Your task to perform on an android device: check out phone information Image 0: 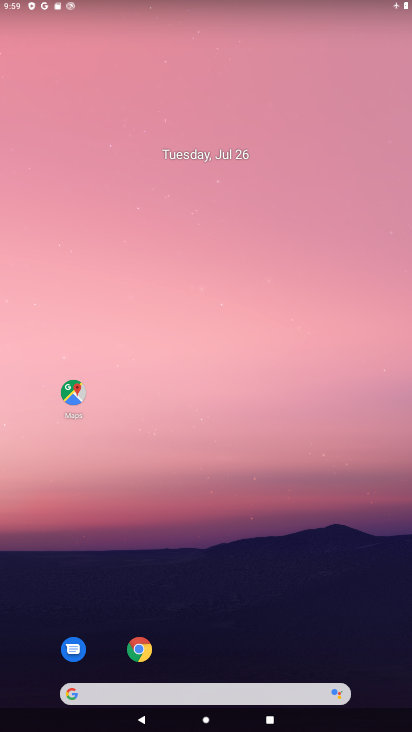
Step 0: drag from (184, 633) to (218, 266)
Your task to perform on an android device: check out phone information Image 1: 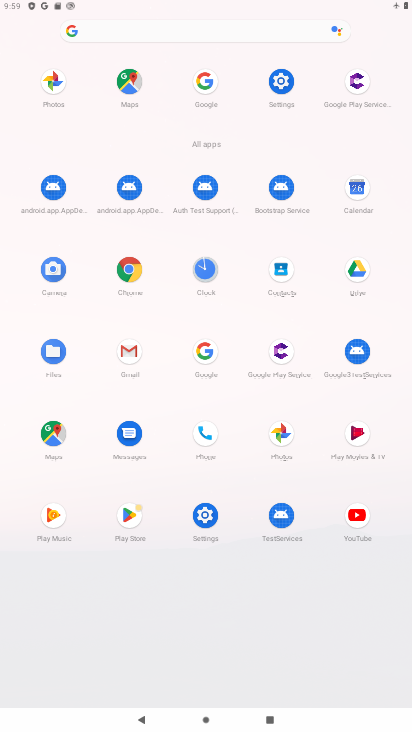
Step 1: click (204, 437)
Your task to perform on an android device: check out phone information Image 2: 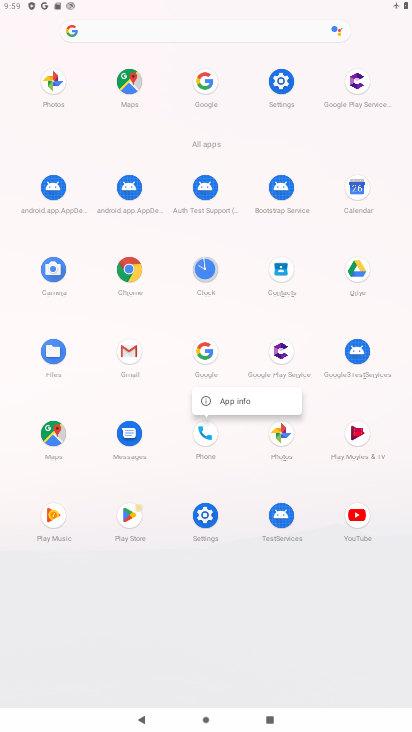
Step 2: click (216, 401)
Your task to perform on an android device: check out phone information Image 3: 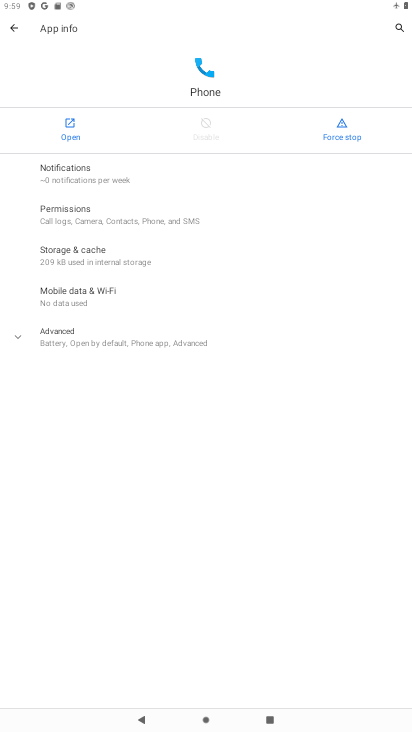
Step 3: click (55, 338)
Your task to perform on an android device: check out phone information Image 4: 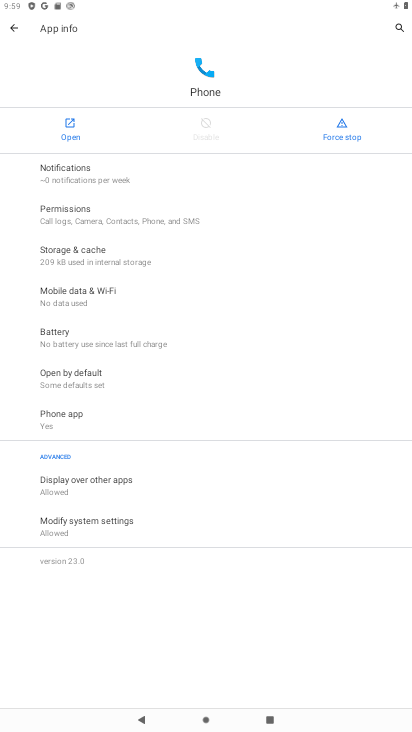
Step 4: task complete